Your task to perform on an android device: Open the Play Movies app and select the watchlist tab. Image 0: 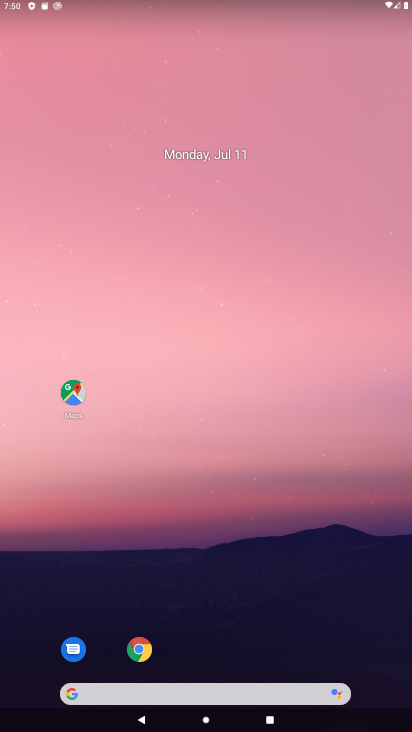
Step 0: drag from (231, 595) to (392, 127)
Your task to perform on an android device: Open the Play Movies app and select the watchlist tab. Image 1: 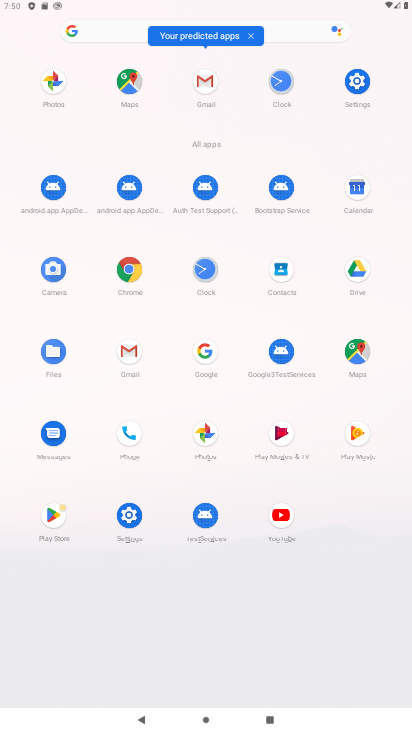
Step 1: click (284, 443)
Your task to perform on an android device: Open the Play Movies app and select the watchlist tab. Image 2: 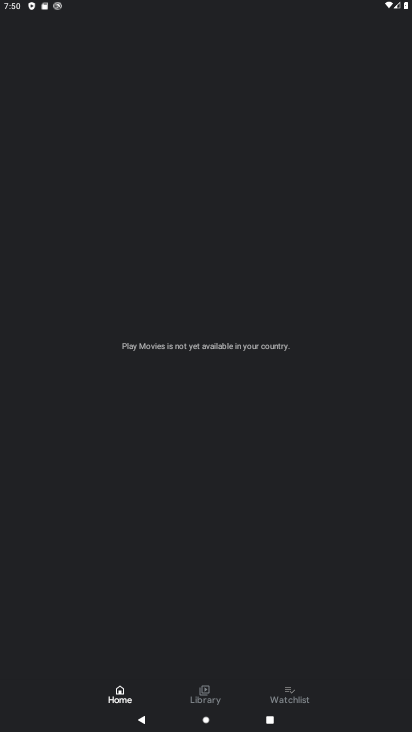
Step 2: click (290, 691)
Your task to perform on an android device: Open the Play Movies app and select the watchlist tab. Image 3: 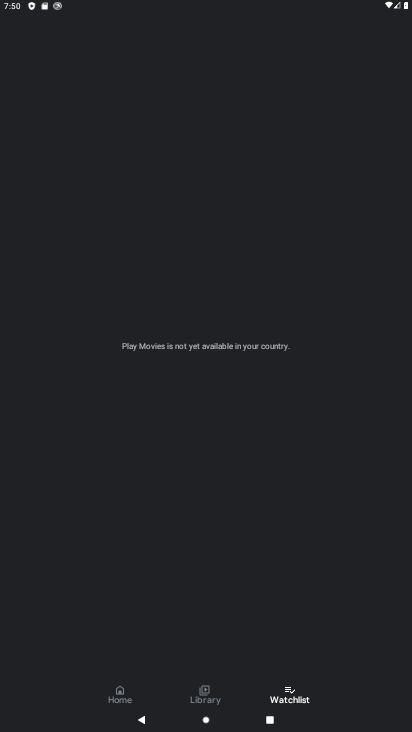
Step 3: task complete